Your task to perform on an android device: open app "Firefox Browser" Image 0: 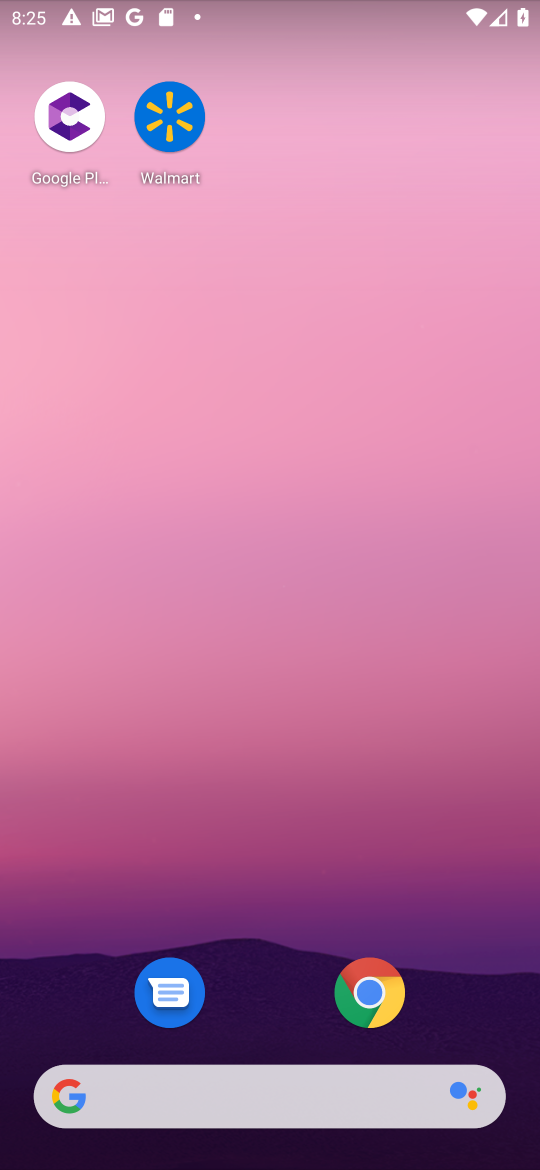
Step 0: drag from (468, 877) to (253, 10)
Your task to perform on an android device: open app "Firefox Browser" Image 1: 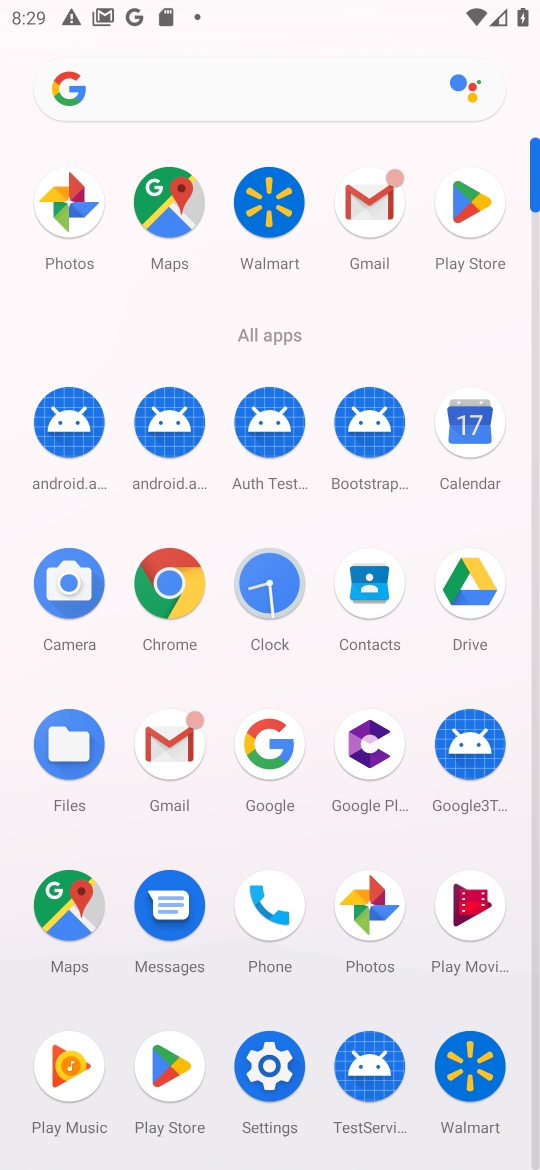
Step 1: click (162, 1075)
Your task to perform on an android device: open app "Firefox Browser" Image 2: 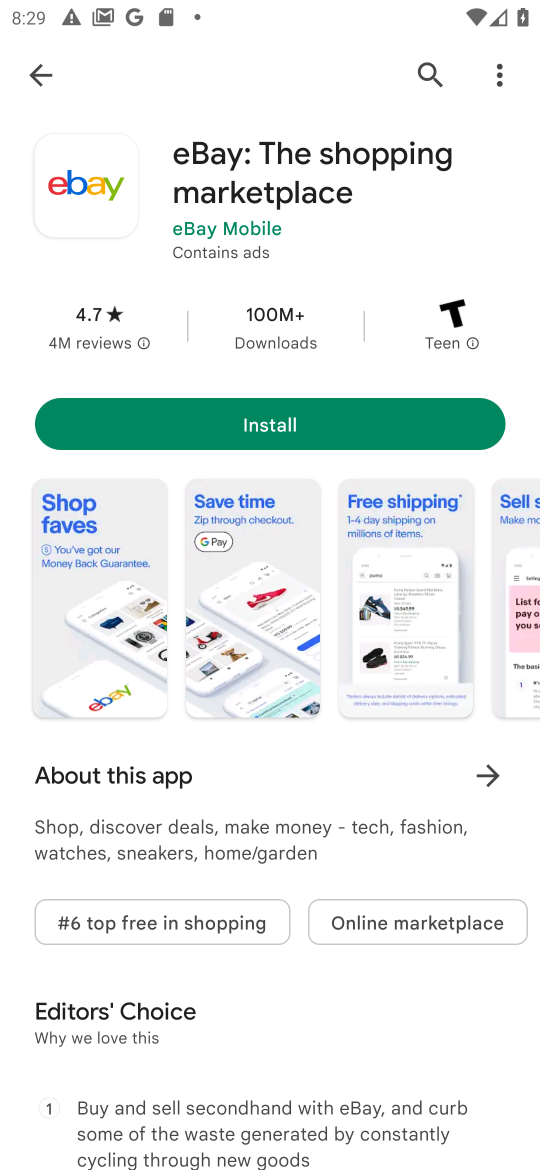
Step 2: press back button
Your task to perform on an android device: open app "Firefox Browser" Image 3: 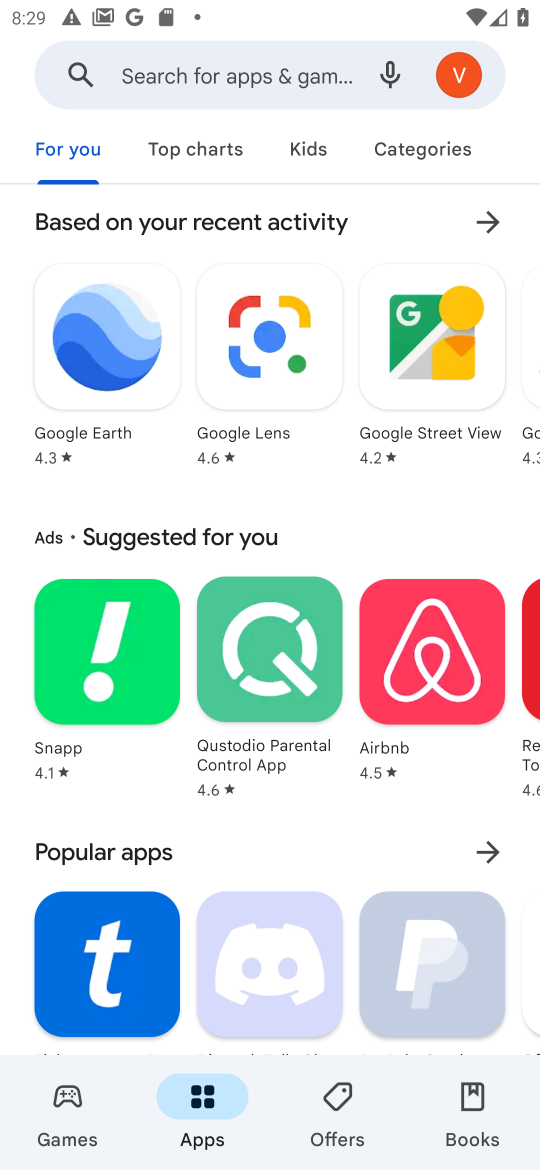
Step 3: click (238, 95)
Your task to perform on an android device: open app "Firefox Browser" Image 4: 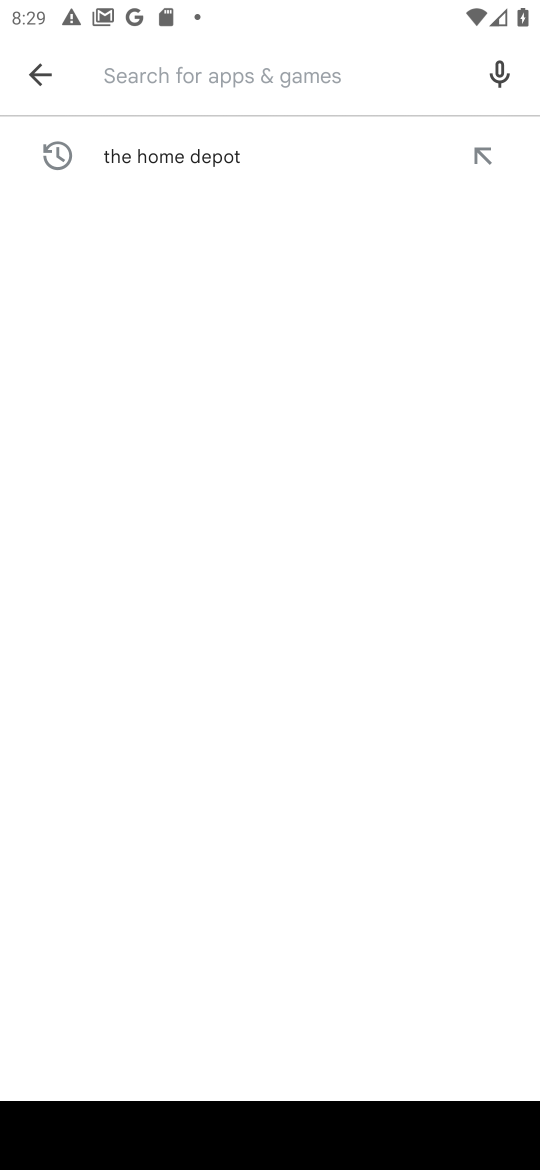
Step 4: type "Firefox Browser"
Your task to perform on an android device: open app "Firefox Browser" Image 5: 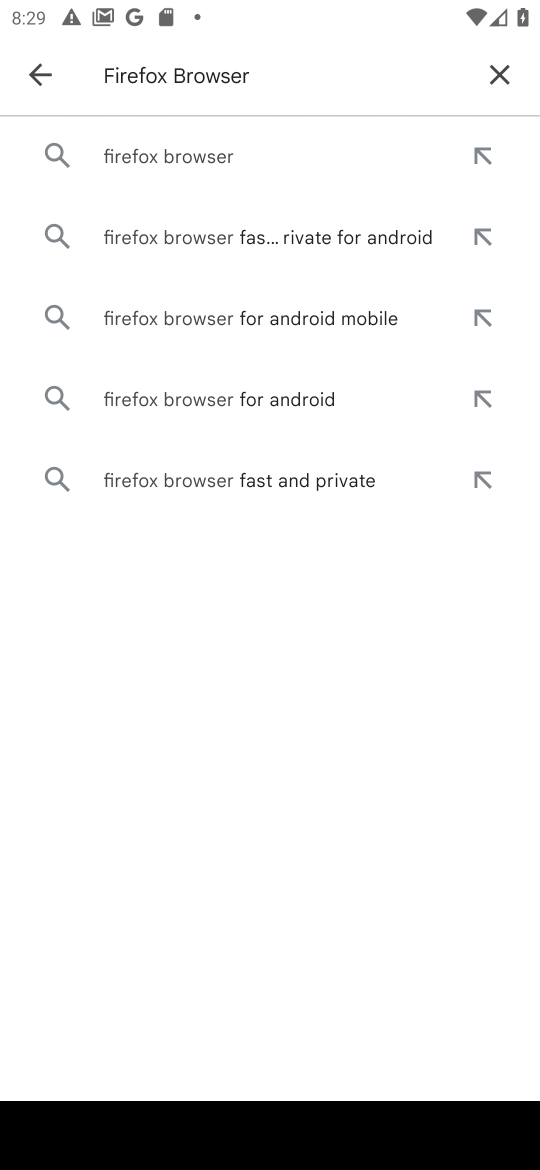
Step 5: click (200, 153)
Your task to perform on an android device: open app "Firefox Browser" Image 6: 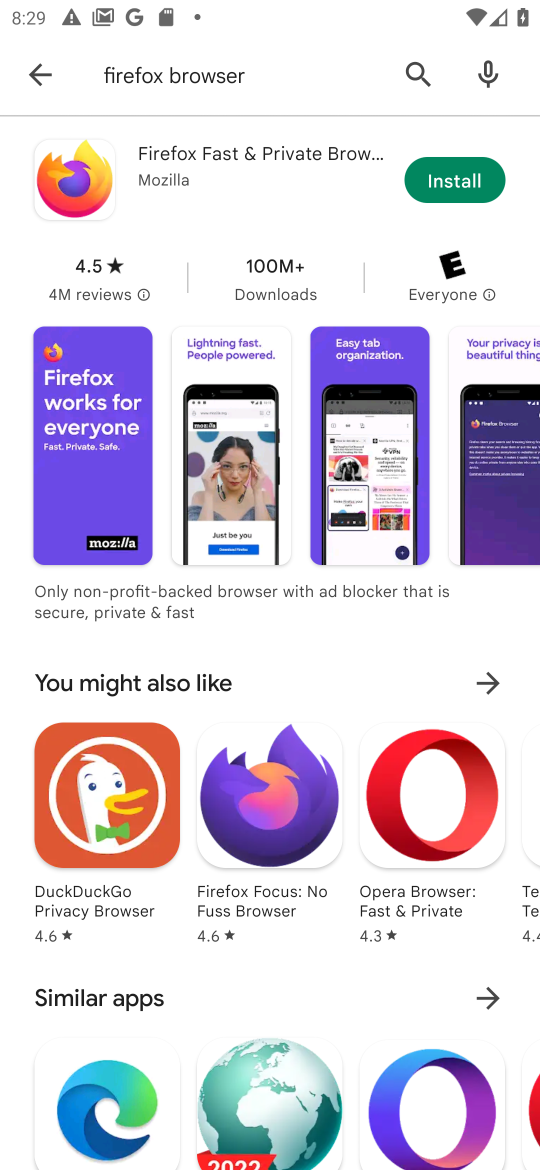
Step 6: task complete